Your task to perform on an android device: Open the calendar and show me this week's events? Image 0: 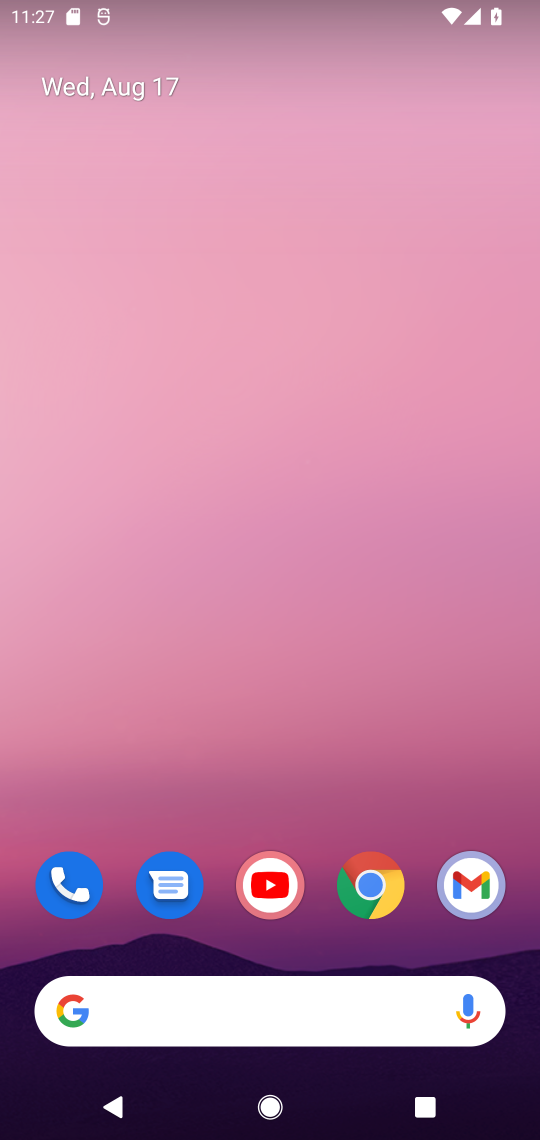
Step 0: drag from (383, 797) to (318, 229)
Your task to perform on an android device: Open the calendar and show me this week's events? Image 1: 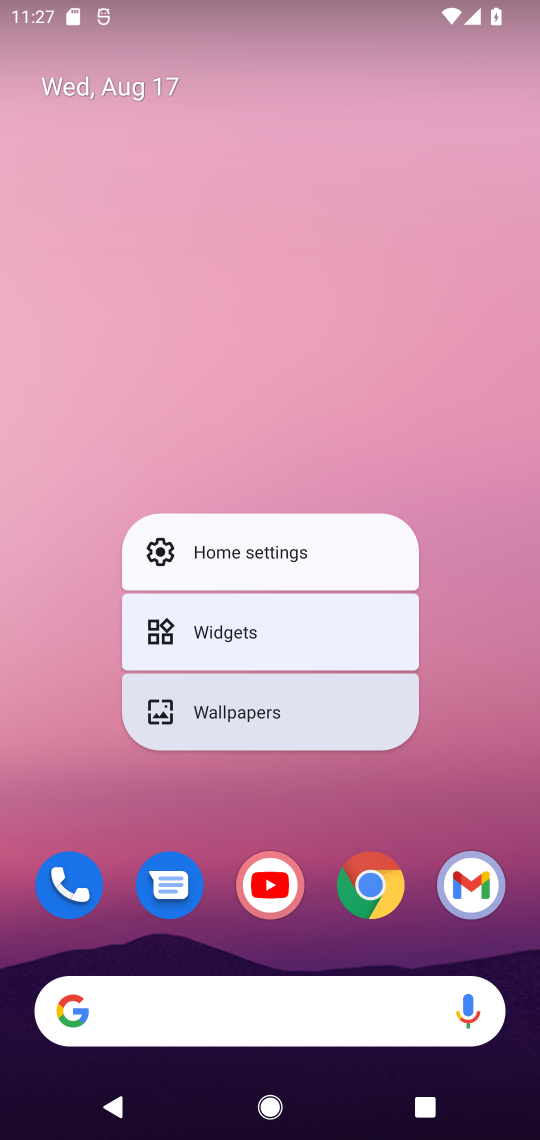
Step 1: click (254, 823)
Your task to perform on an android device: Open the calendar and show me this week's events? Image 2: 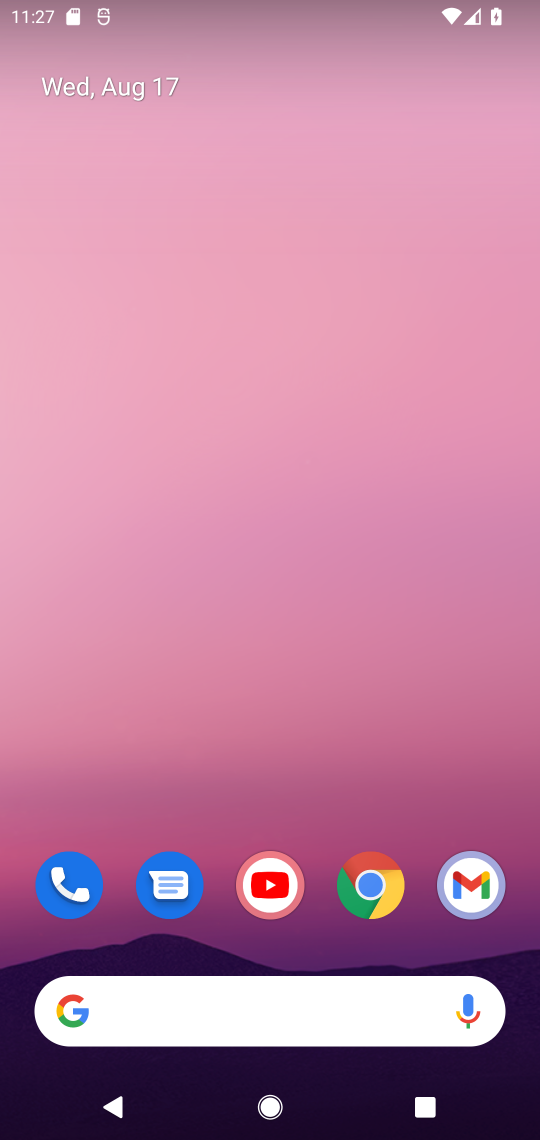
Step 2: drag from (353, 814) to (341, 221)
Your task to perform on an android device: Open the calendar and show me this week's events? Image 3: 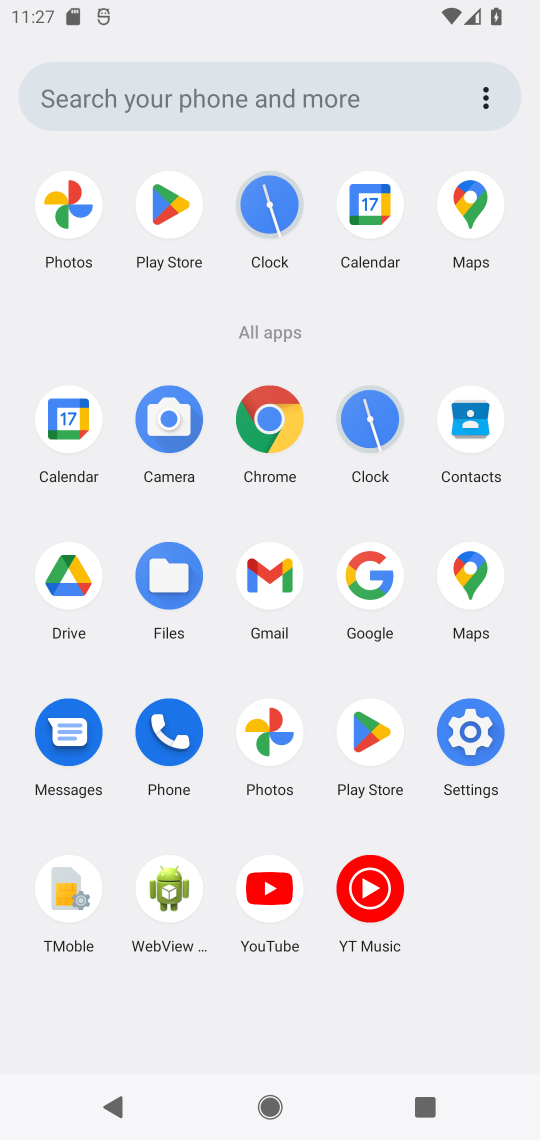
Step 3: click (67, 418)
Your task to perform on an android device: Open the calendar and show me this week's events? Image 4: 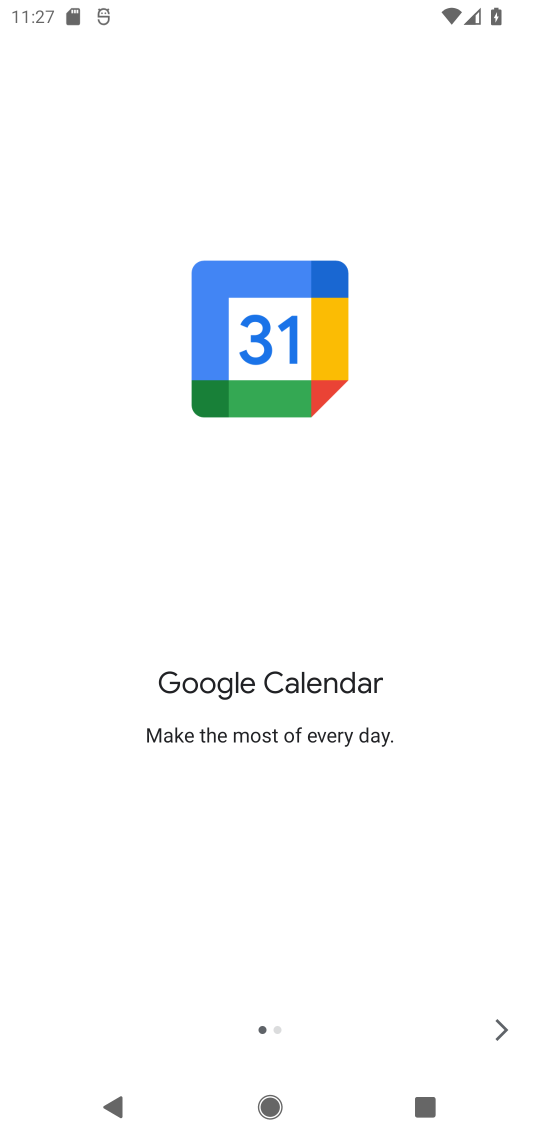
Step 4: click (502, 1033)
Your task to perform on an android device: Open the calendar and show me this week's events? Image 5: 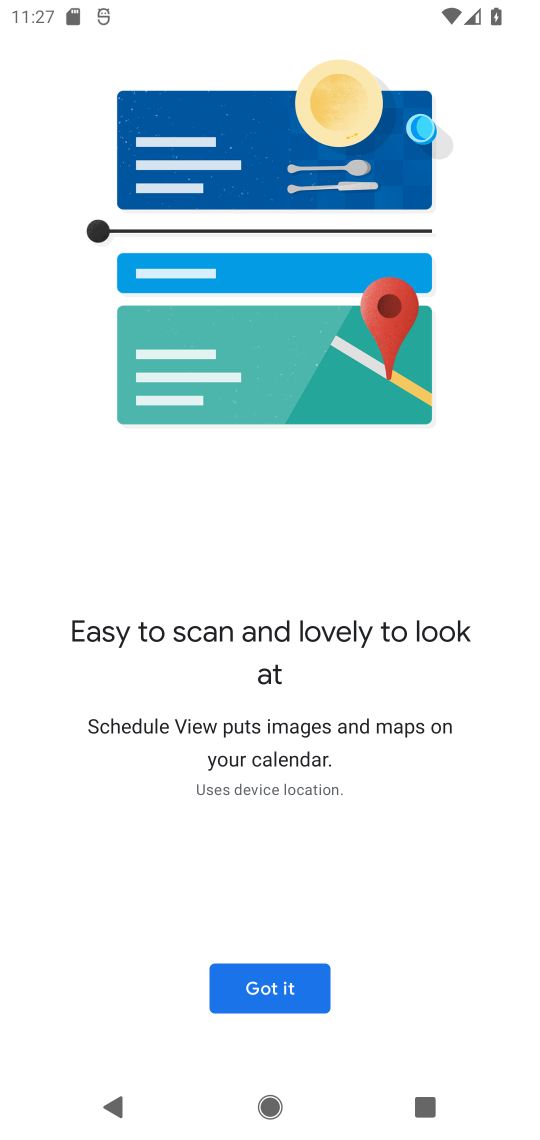
Step 5: click (266, 1001)
Your task to perform on an android device: Open the calendar and show me this week's events? Image 6: 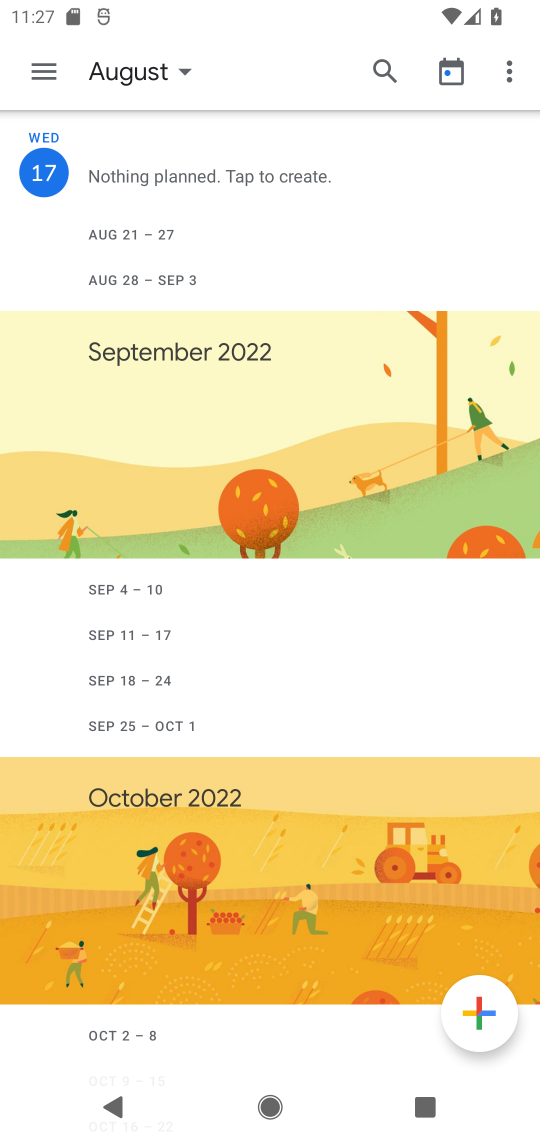
Step 6: click (56, 81)
Your task to perform on an android device: Open the calendar and show me this week's events? Image 7: 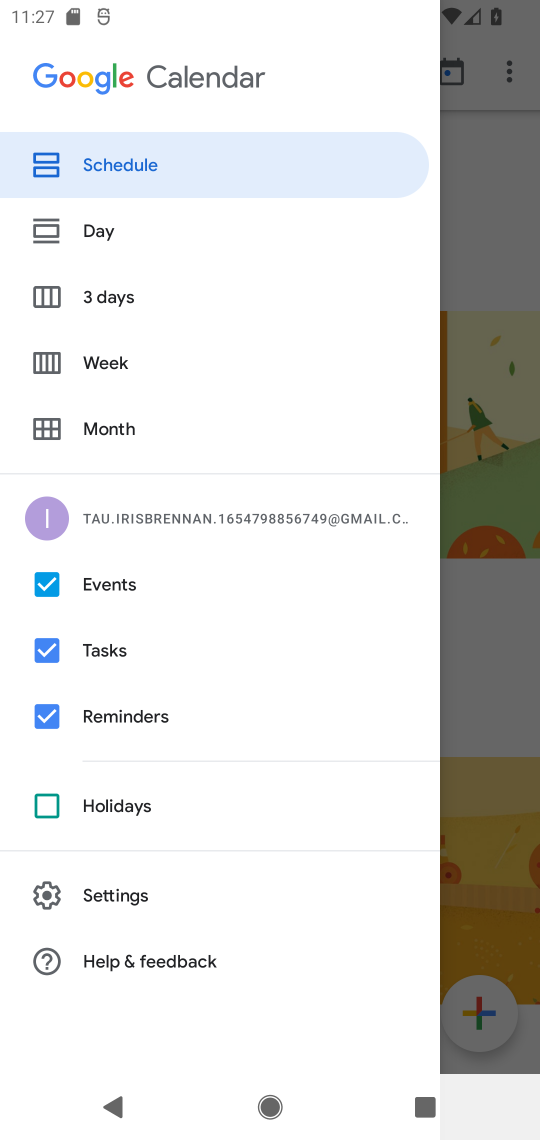
Step 7: click (147, 357)
Your task to perform on an android device: Open the calendar and show me this week's events? Image 8: 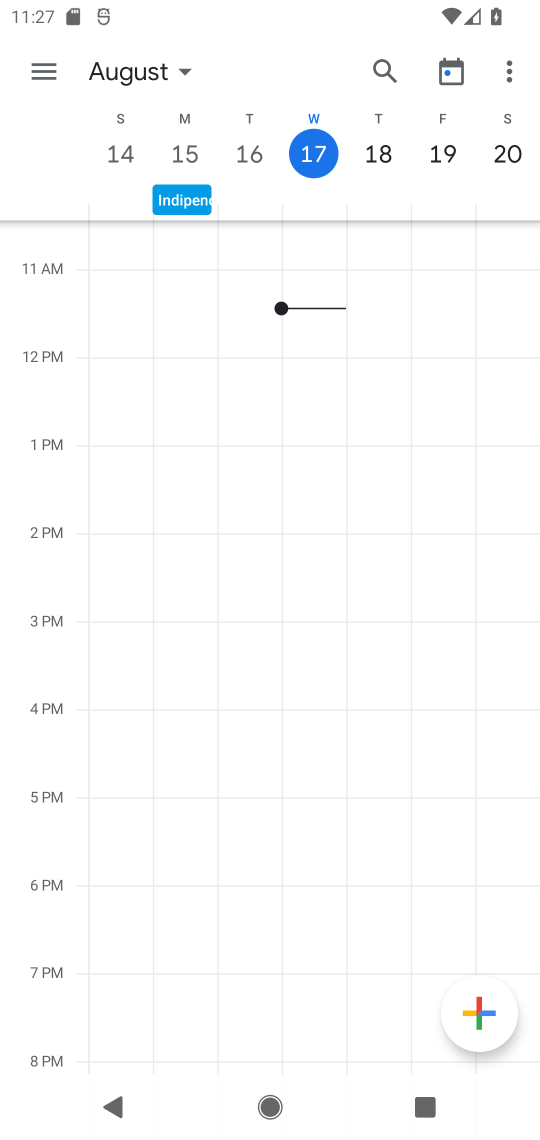
Step 8: task complete